Your task to perform on an android device: Open settings on Google Maps Image 0: 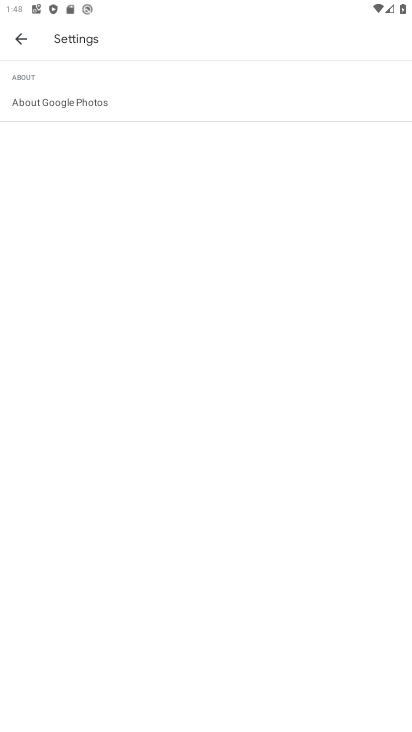
Step 0: press back button
Your task to perform on an android device: Open settings on Google Maps Image 1: 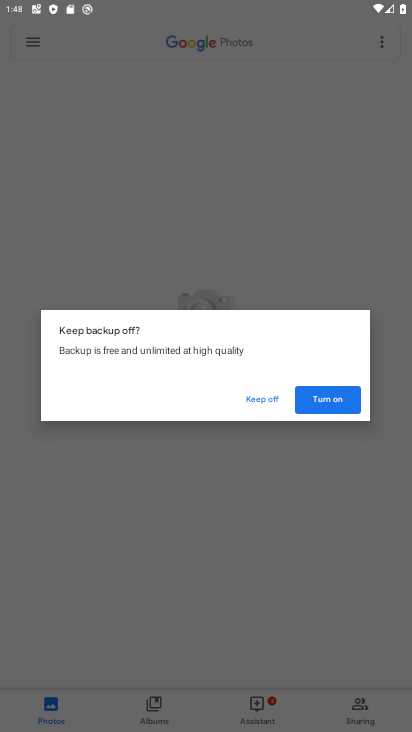
Step 1: press home button
Your task to perform on an android device: Open settings on Google Maps Image 2: 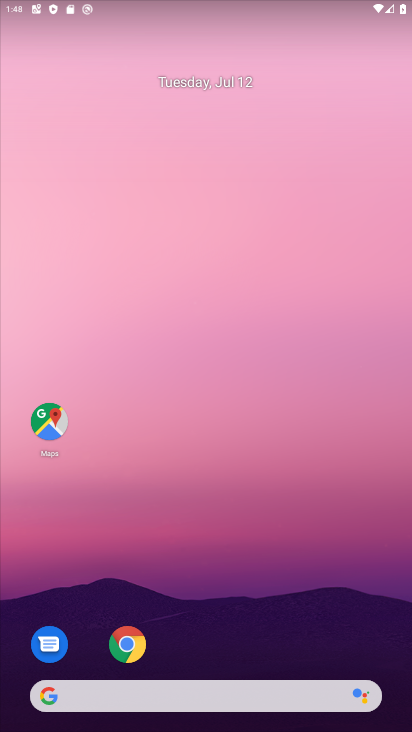
Step 2: click (54, 423)
Your task to perform on an android device: Open settings on Google Maps Image 3: 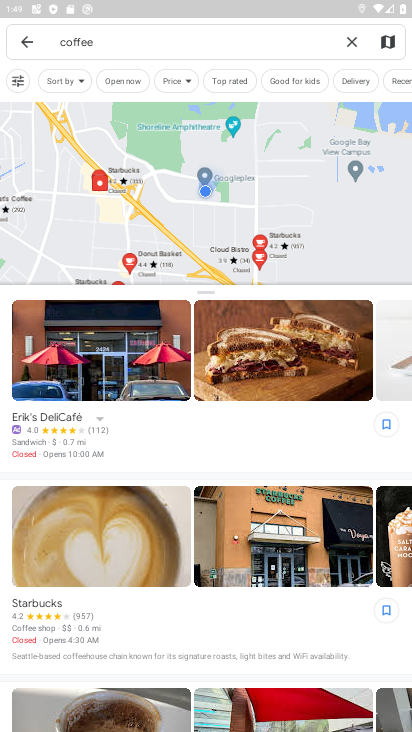
Step 3: click (31, 45)
Your task to perform on an android device: Open settings on Google Maps Image 4: 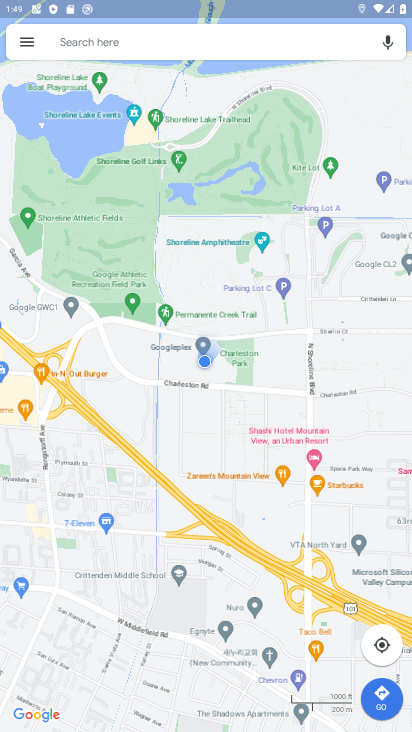
Step 4: click (28, 36)
Your task to perform on an android device: Open settings on Google Maps Image 5: 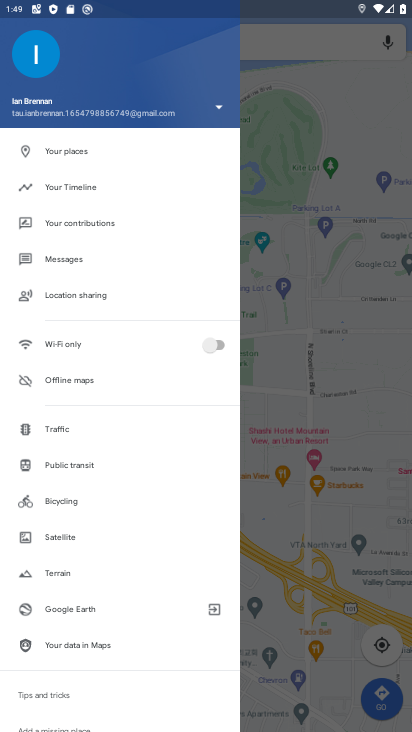
Step 5: drag from (85, 661) to (170, 55)
Your task to perform on an android device: Open settings on Google Maps Image 6: 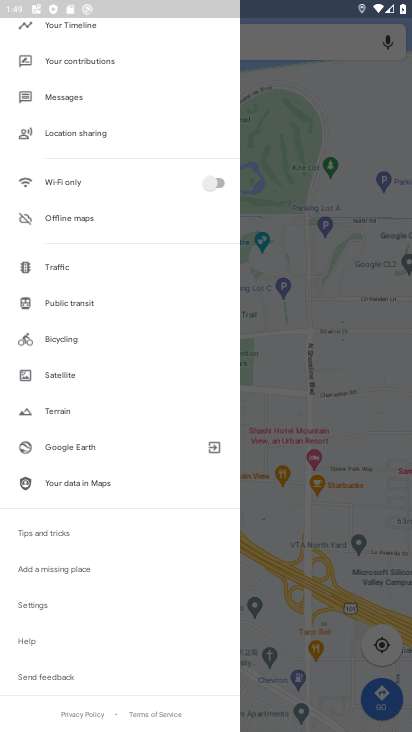
Step 6: click (35, 607)
Your task to perform on an android device: Open settings on Google Maps Image 7: 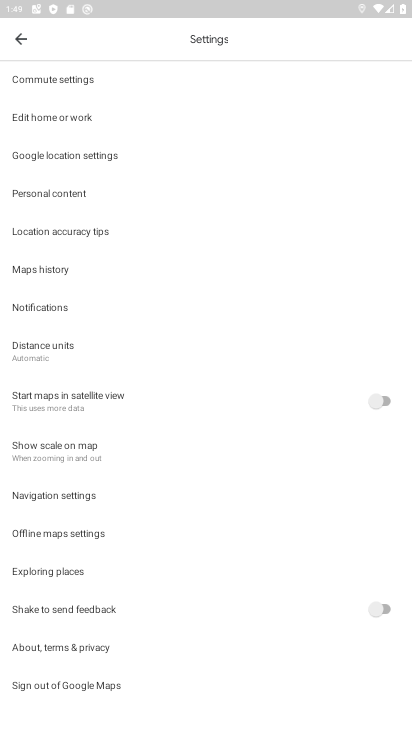
Step 7: task complete